Your task to perform on an android device: change the upload size in google photos Image 0: 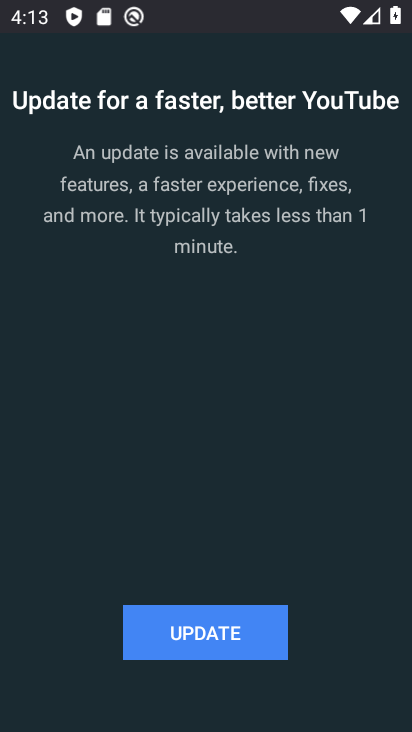
Step 0: press back button
Your task to perform on an android device: change the upload size in google photos Image 1: 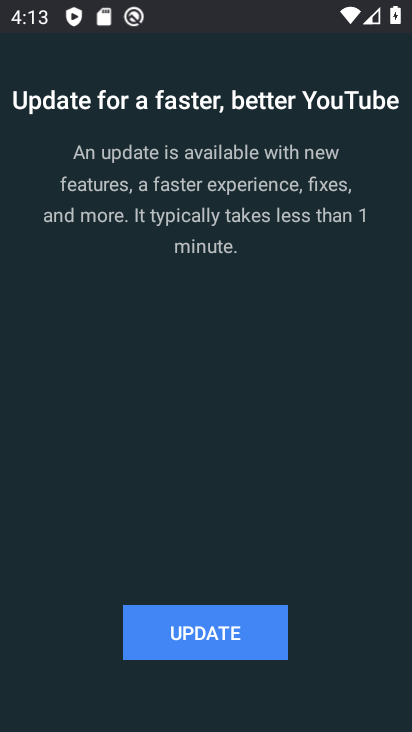
Step 1: press back button
Your task to perform on an android device: change the upload size in google photos Image 2: 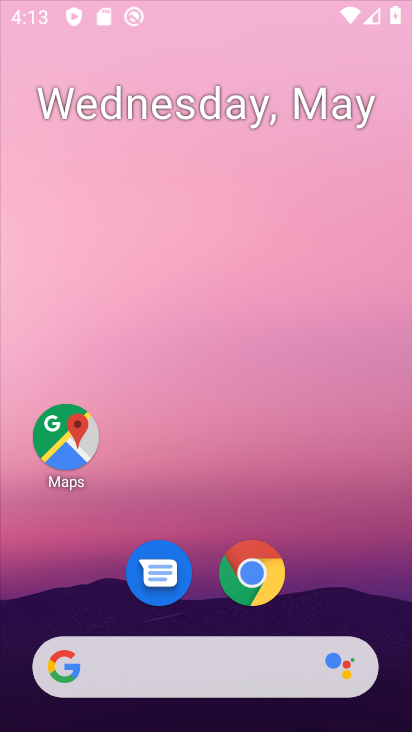
Step 2: press back button
Your task to perform on an android device: change the upload size in google photos Image 3: 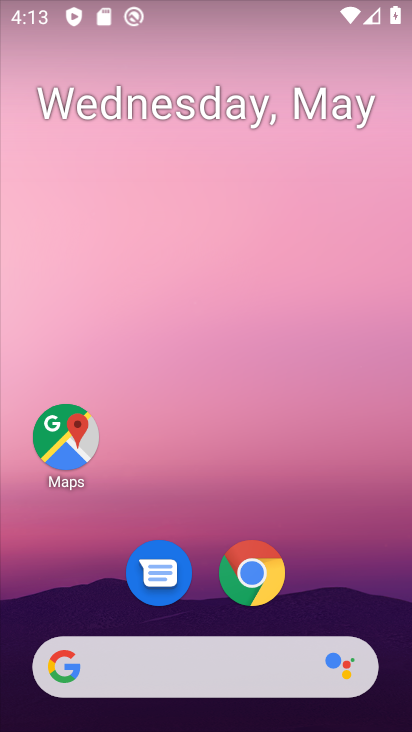
Step 3: drag from (232, 708) to (147, 180)
Your task to perform on an android device: change the upload size in google photos Image 4: 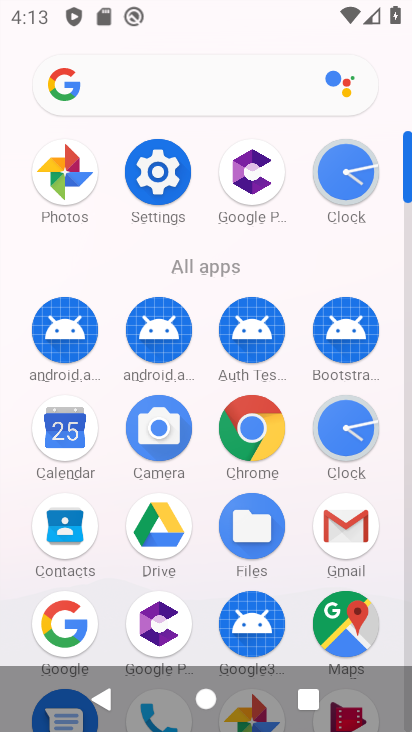
Step 4: drag from (294, 425) to (294, 175)
Your task to perform on an android device: change the upload size in google photos Image 5: 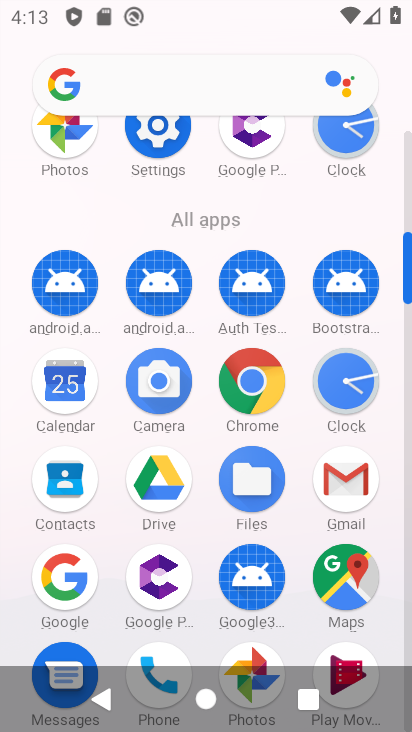
Step 5: drag from (330, 477) to (296, 138)
Your task to perform on an android device: change the upload size in google photos Image 6: 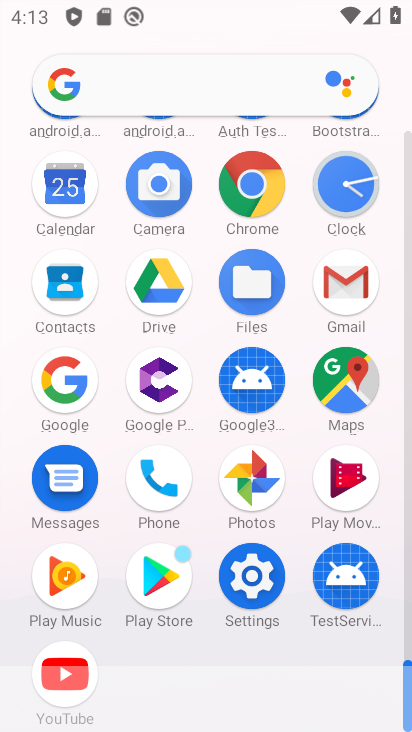
Step 6: click (244, 485)
Your task to perform on an android device: change the upload size in google photos Image 7: 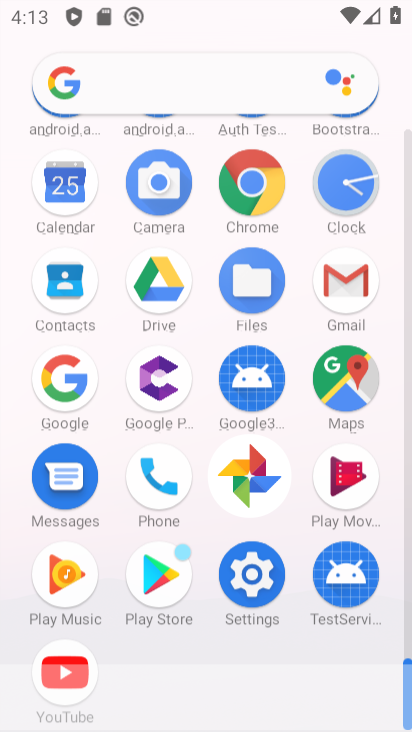
Step 7: click (245, 483)
Your task to perform on an android device: change the upload size in google photos Image 8: 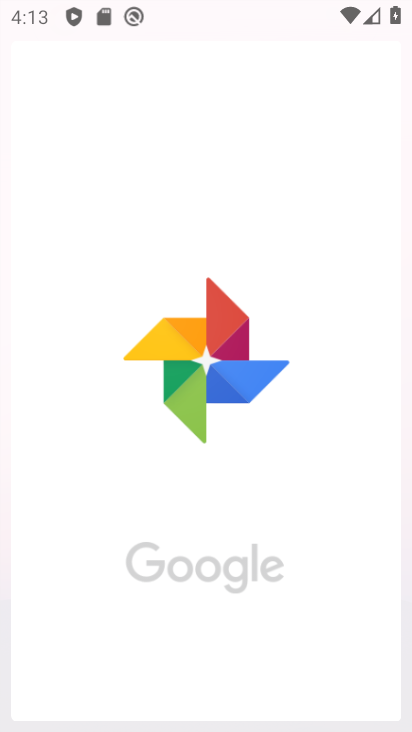
Step 8: click (246, 483)
Your task to perform on an android device: change the upload size in google photos Image 9: 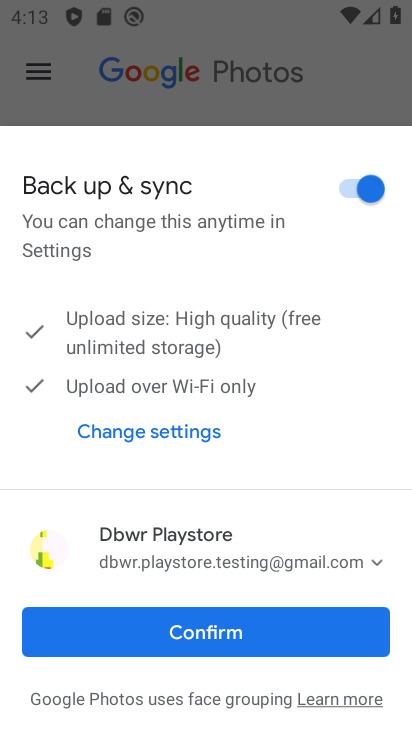
Step 9: click (217, 628)
Your task to perform on an android device: change the upload size in google photos Image 10: 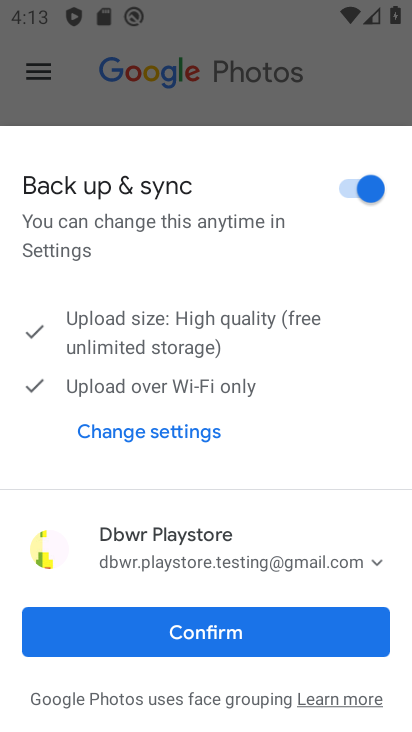
Step 10: click (217, 628)
Your task to perform on an android device: change the upload size in google photos Image 11: 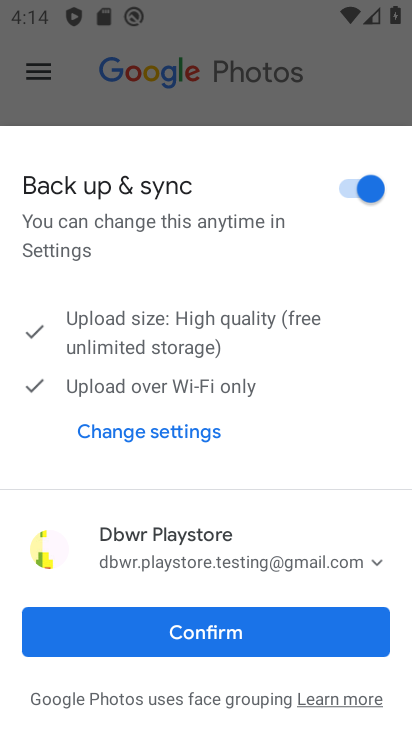
Step 11: click (217, 628)
Your task to perform on an android device: change the upload size in google photos Image 12: 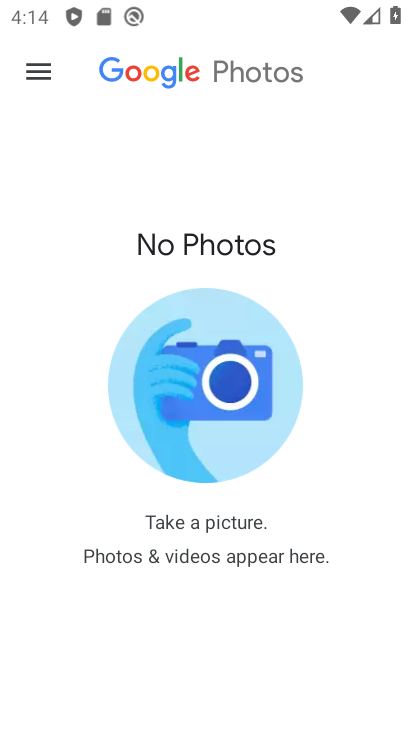
Step 12: click (218, 627)
Your task to perform on an android device: change the upload size in google photos Image 13: 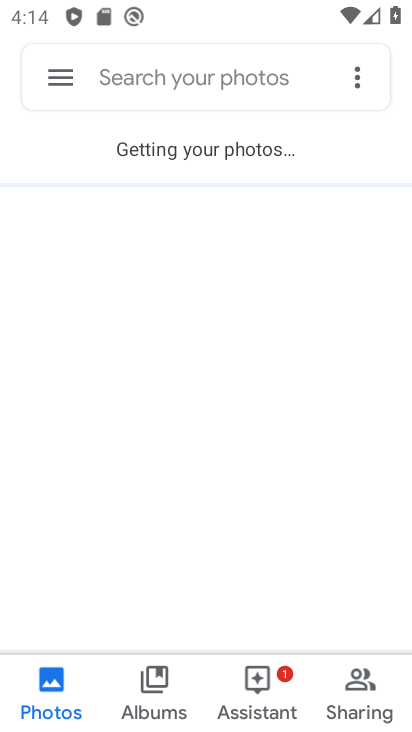
Step 13: press back button
Your task to perform on an android device: change the upload size in google photos Image 14: 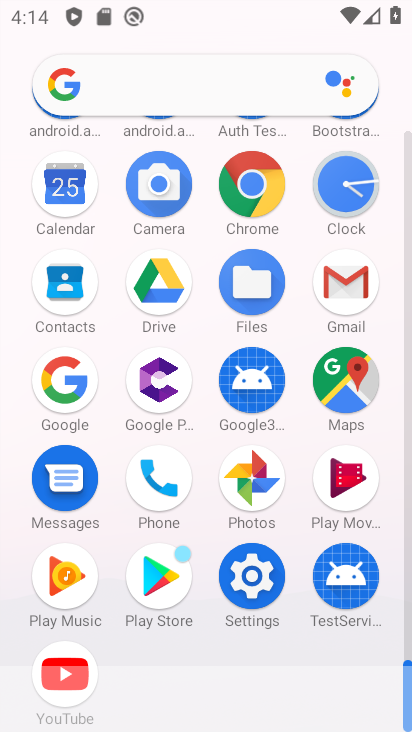
Step 14: click (253, 478)
Your task to perform on an android device: change the upload size in google photos Image 15: 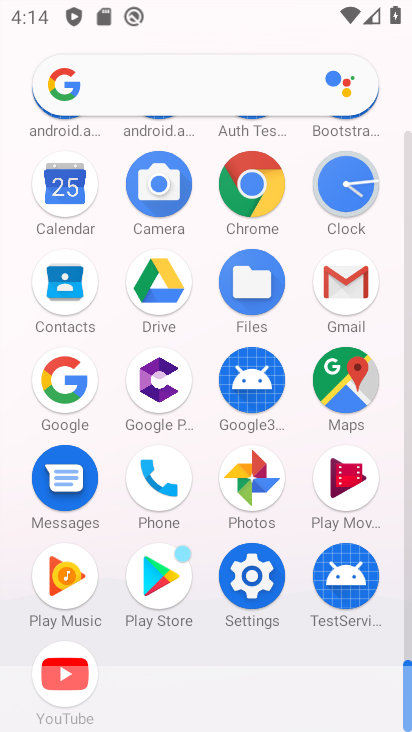
Step 15: click (253, 478)
Your task to perform on an android device: change the upload size in google photos Image 16: 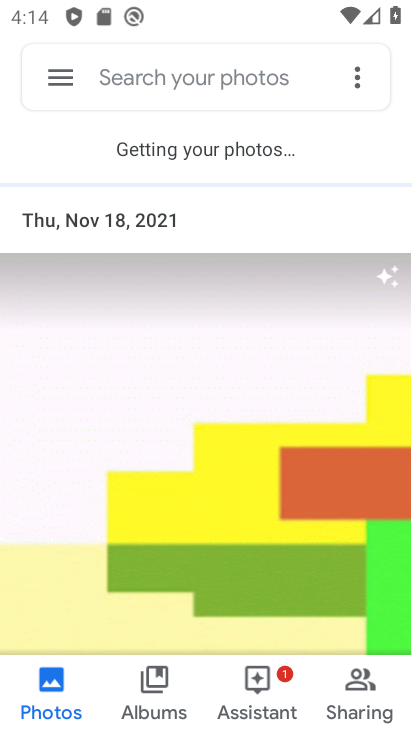
Step 16: click (46, 75)
Your task to perform on an android device: change the upload size in google photos Image 17: 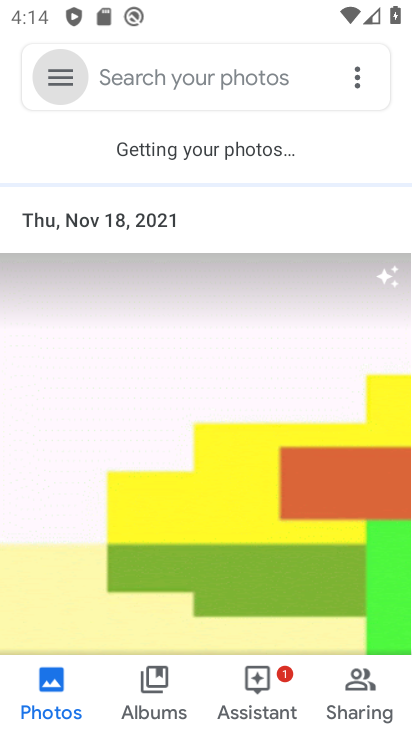
Step 17: click (46, 75)
Your task to perform on an android device: change the upload size in google photos Image 18: 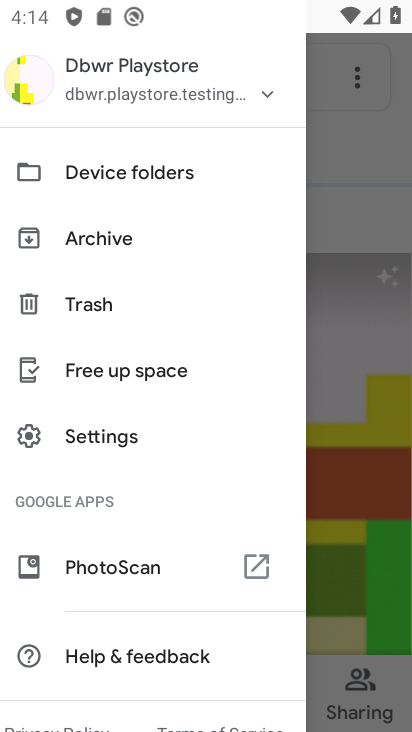
Step 18: drag from (50, 79) to (111, 435)
Your task to perform on an android device: change the upload size in google photos Image 19: 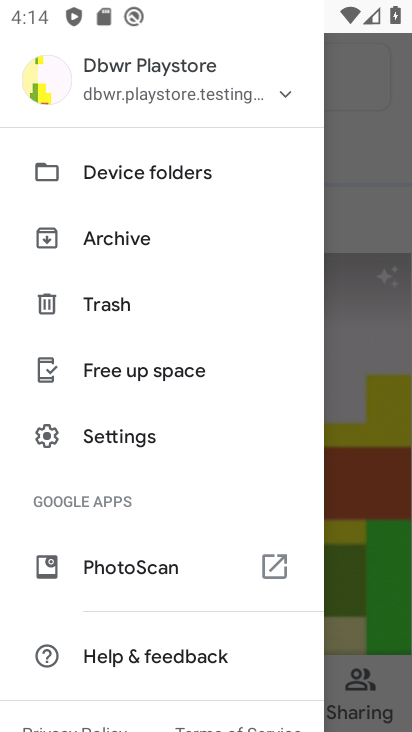
Step 19: click (108, 434)
Your task to perform on an android device: change the upload size in google photos Image 20: 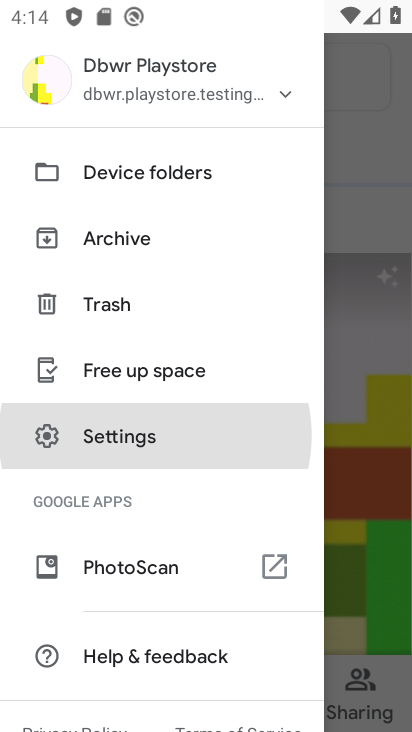
Step 20: click (108, 434)
Your task to perform on an android device: change the upload size in google photos Image 21: 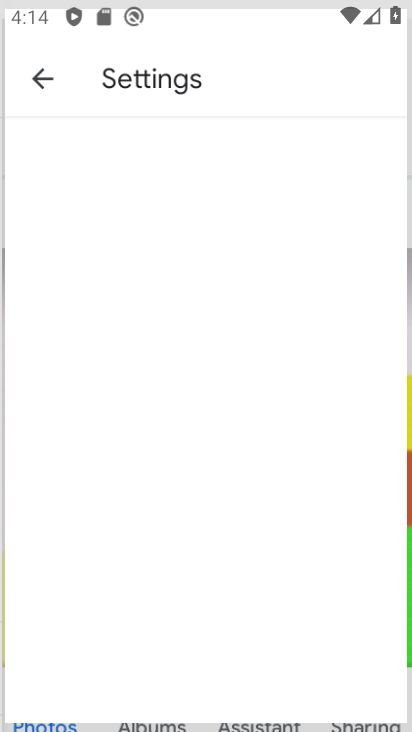
Step 21: click (108, 434)
Your task to perform on an android device: change the upload size in google photos Image 22: 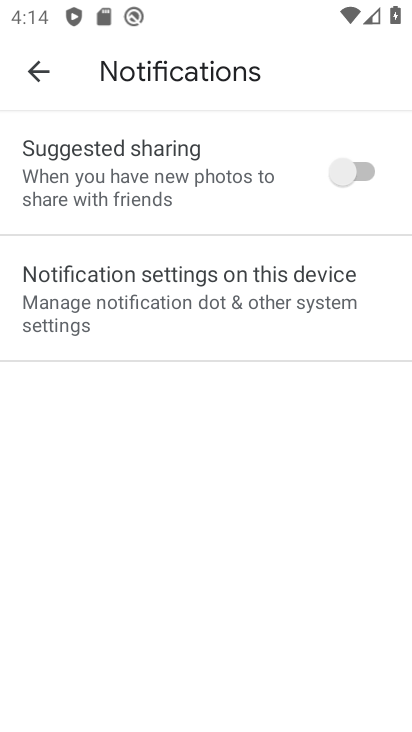
Step 22: click (36, 60)
Your task to perform on an android device: change the upload size in google photos Image 23: 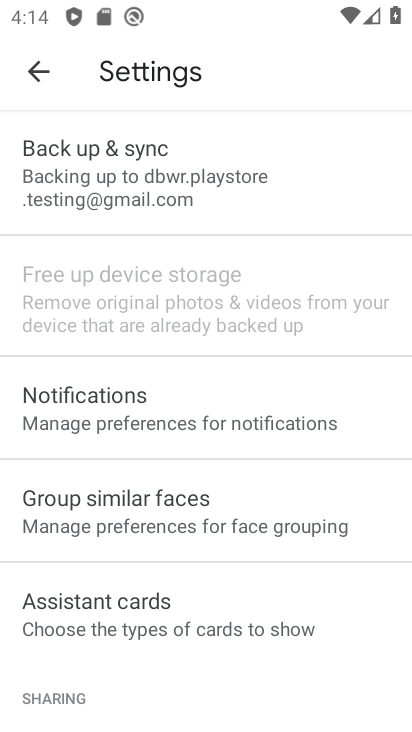
Step 23: click (91, 178)
Your task to perform on an android device: change the upload size in google photos Image 24: 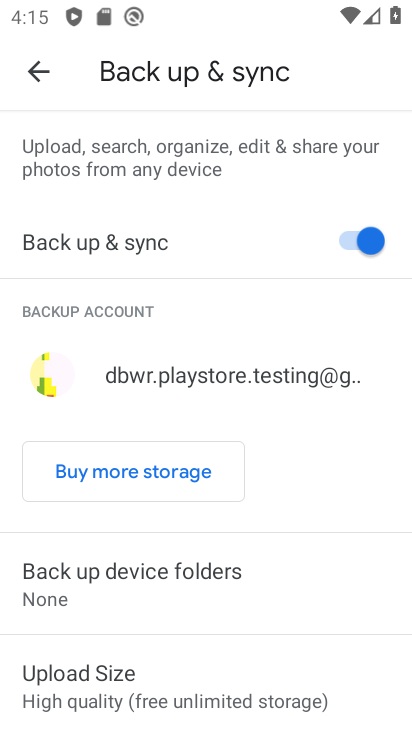
Step 24: click (79, 153)
Your task to perform on an android device: change the upload size in google photos Image 25: 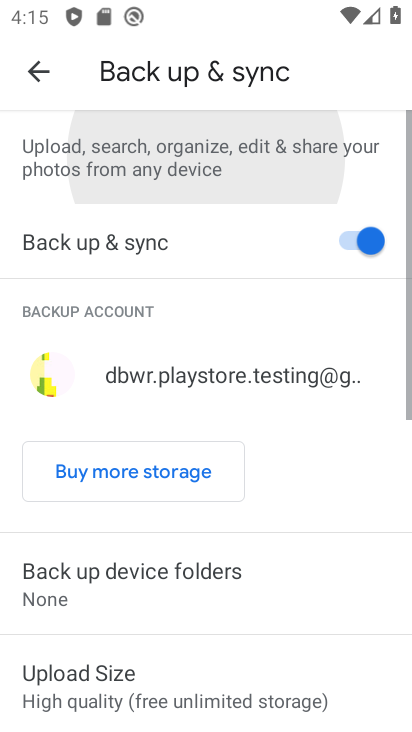
Step 25: click (83, 153)
Your task to perform on an android device: change the upload size in google photos Image 26: 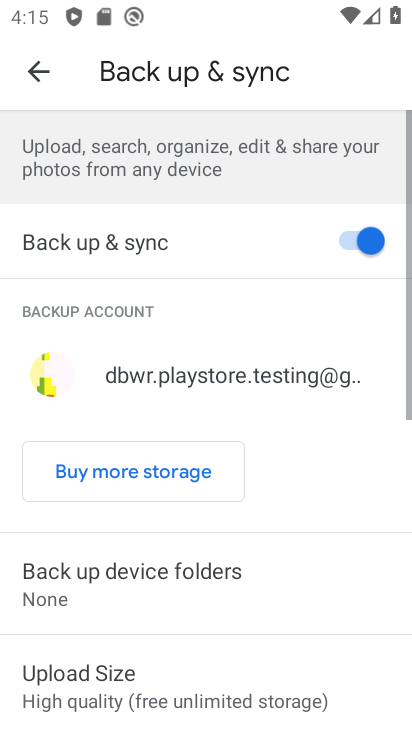
Step 26: click (83, 153)
Your task to perform on an android device: change the upload size in google photos Image 27: 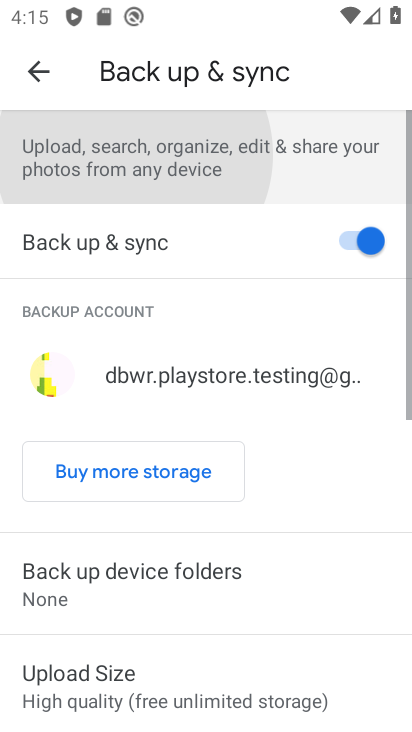
Step 27: click (84, 152)
Your task to perform on an android device: change the upload size in google photos Image 28: 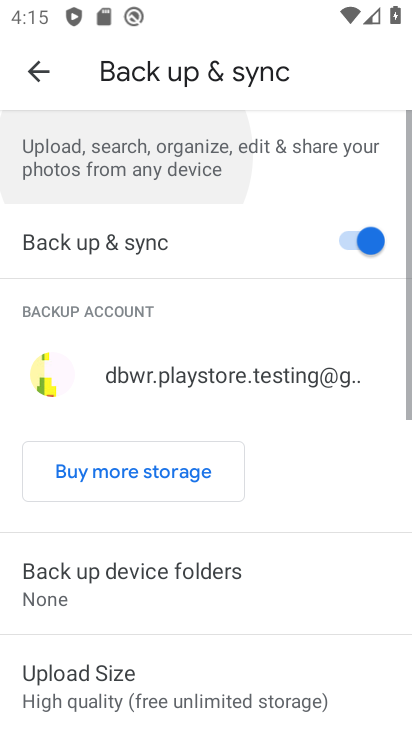
Step 28: click (85, 151)
Your task to perform on an android device: change the upload size in google photos Image 29: 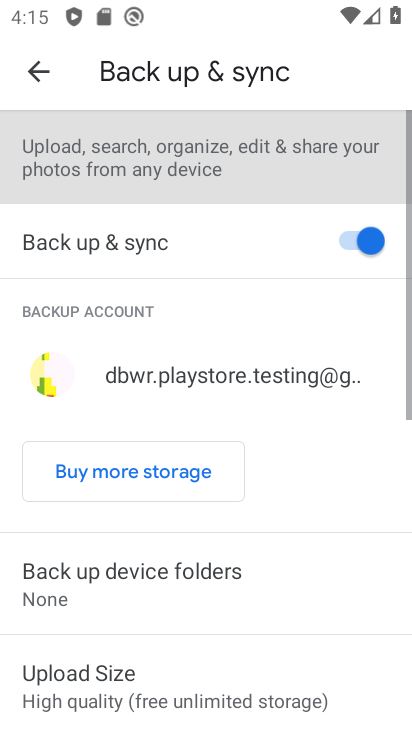
Step 29: click (85, 151)
Your task to perform on an android device: change the upload size in google photos Image 30: 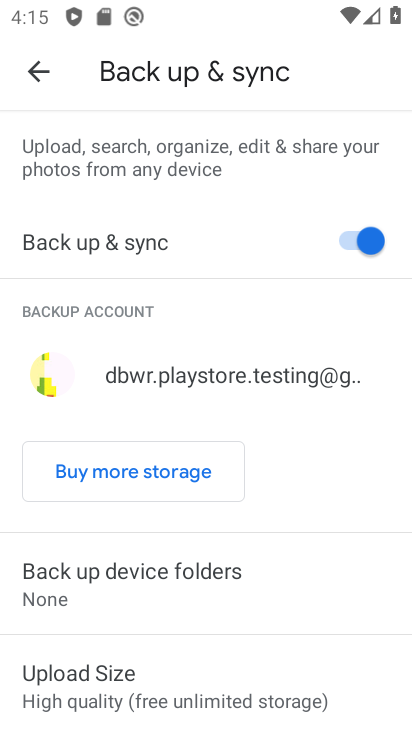
Step 30: click (83, 189)
Your task to perform on an android device: change the upload size in google photos Image 31: 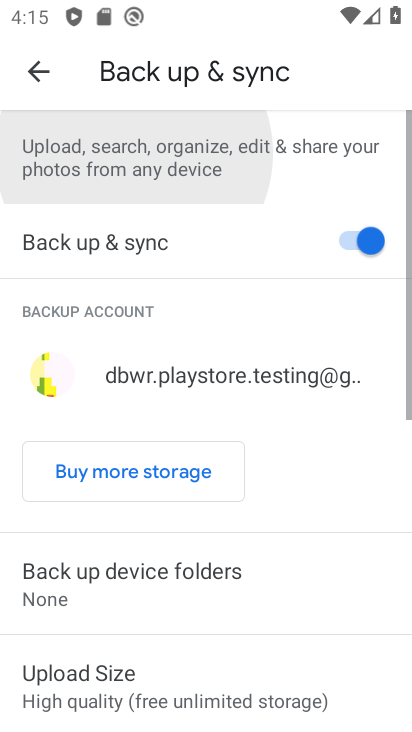
Step 31: click (83, 157)
Your task to perform on an android device: change the upload size in google photos Image 32: 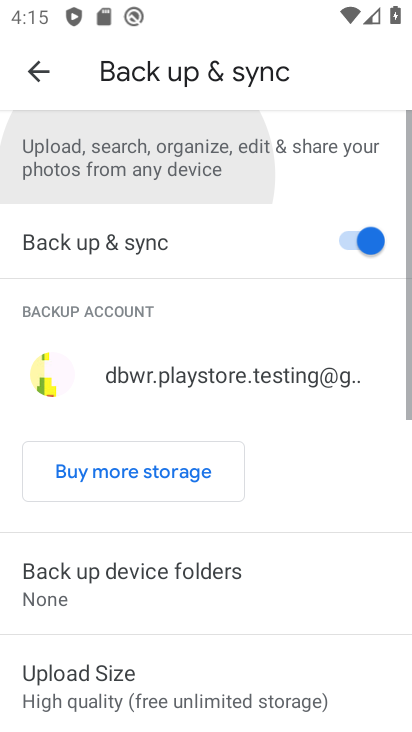
Step 32: click (83, 156)
Your task to perform on an android device: change the upload size in google photos Image 33: 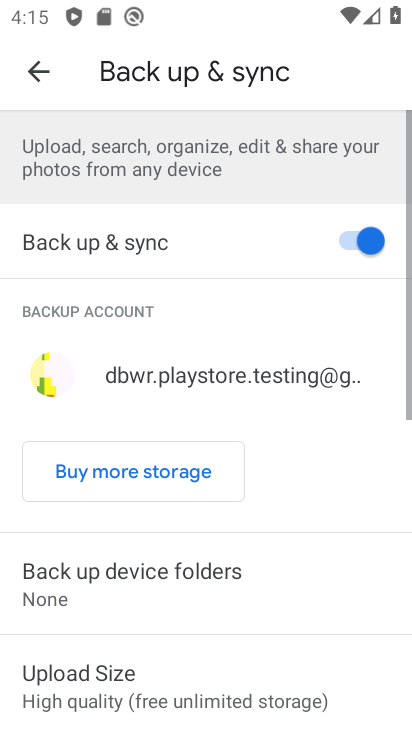
Step 33: click (89, 155)
Your task to perform on an android device: change the upload size in google photos Image 34: 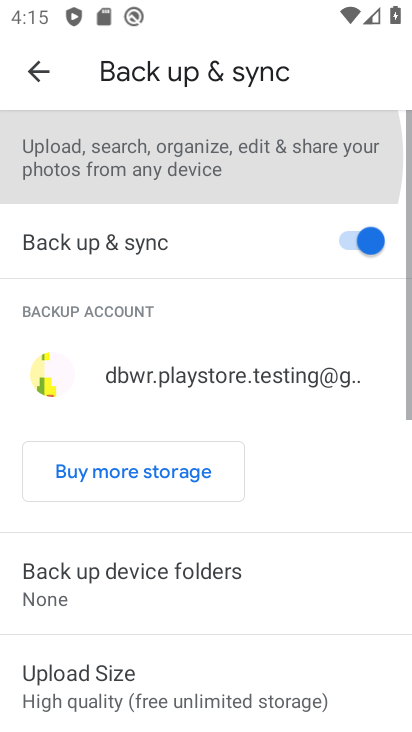
Step 34: click (89, 155)
Your task to perform on an android device: change the upload size in google photos Image 35: 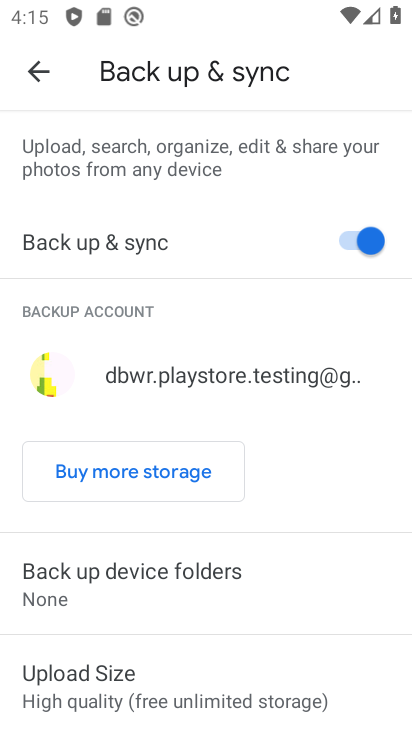
Step 35: click (87, 160)
Your task to perform on an android device: change the upload size in google photos Image 36: 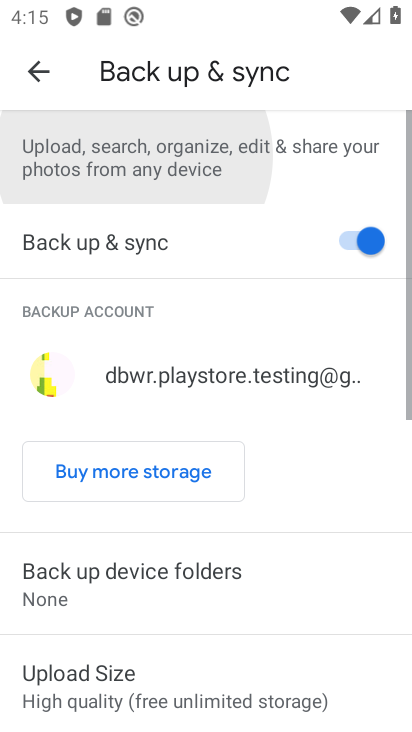
Step 36: click (87, 160)
Your task to perform on an android device: change the upload size in google photos Image 37: 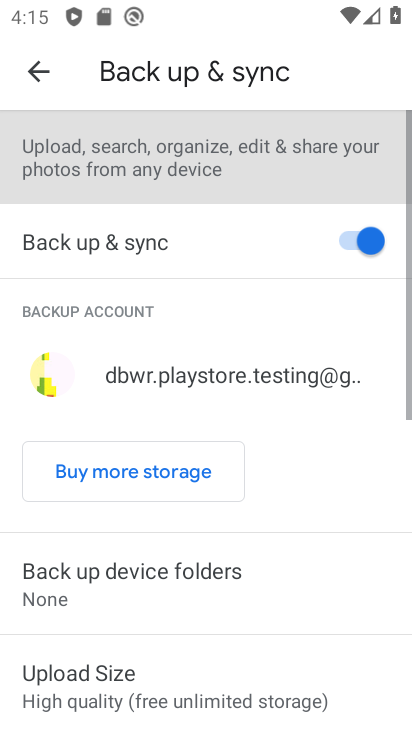
Step 37: click (87, 161)
Your task to perform on an android device: change the upload size in google photos Image 38: 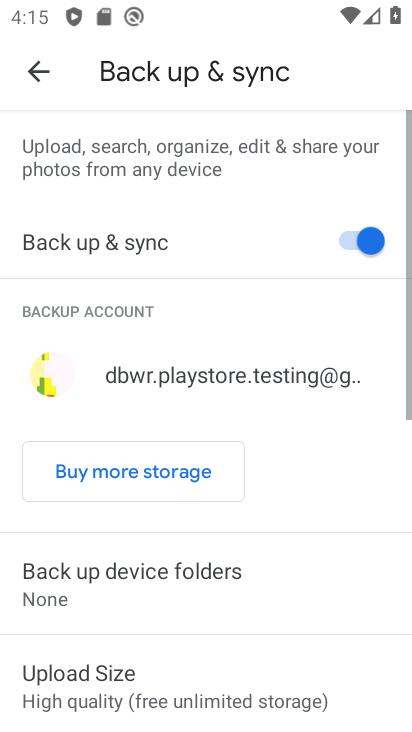
Step 38: click (87, 161)
Your task to perform on an android device: change the upload size in google photos Image 39: 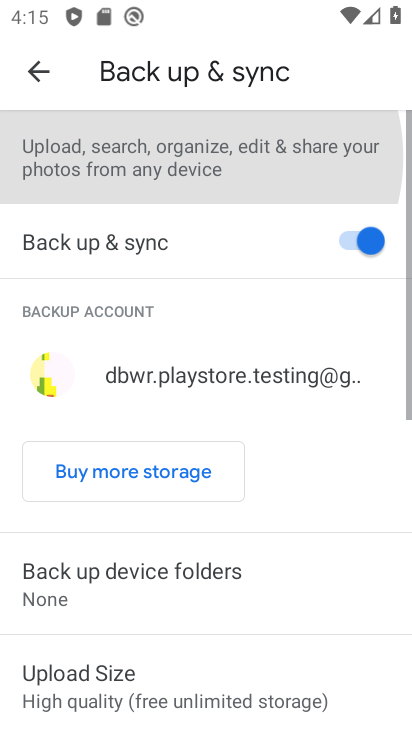
Step 39: click (87, 163)
Your task to perform on an android device: change the upload size in google photos Image 40: 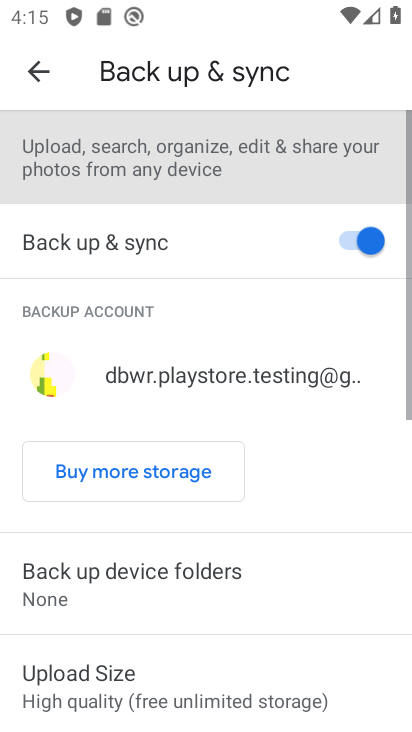
Step 40: click (89, 165)
Your task to perform on an android device: change the upload size in google photos Image 41: 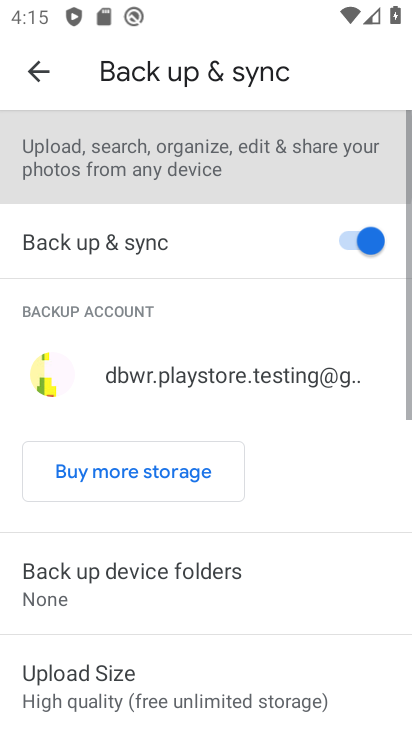
Step 41: click (89, 165)
Your task to perform on an android device: change the upload size in google photos Image 42: 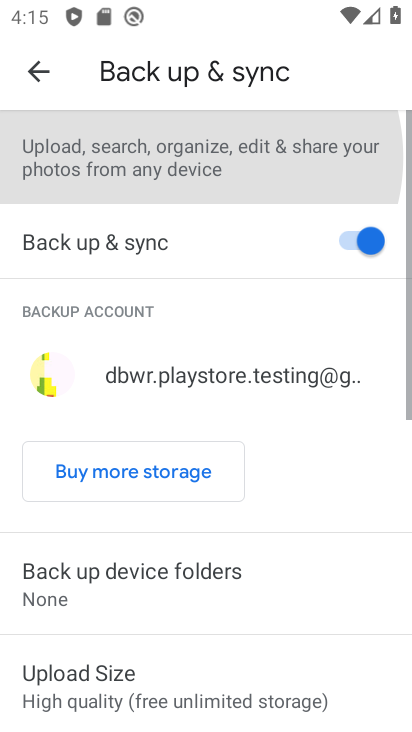
Step 42: click (89, 165)
Your task to perform on an android device: change the upload size in google photos Image 43: 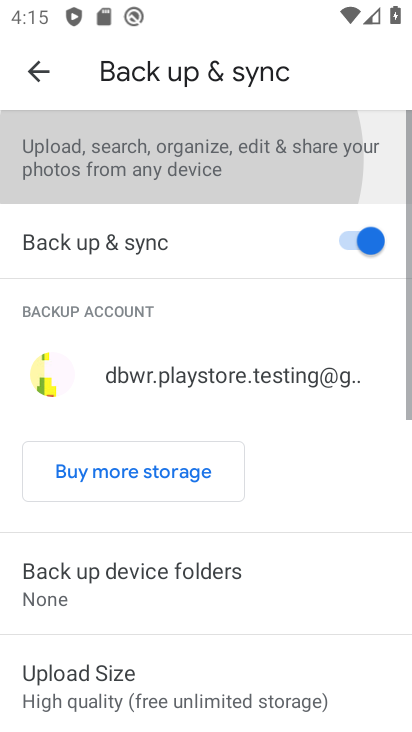
Step 43: click (89, 165)
Your task to perform on an android device: change the upload size in google photos Image 44: 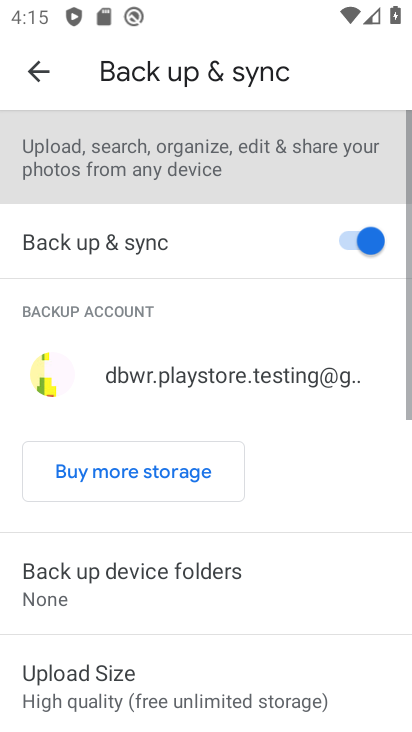
Step 44: click (89, 165)
Your task to perform on an android device: change the upload size in google photos Image 45: 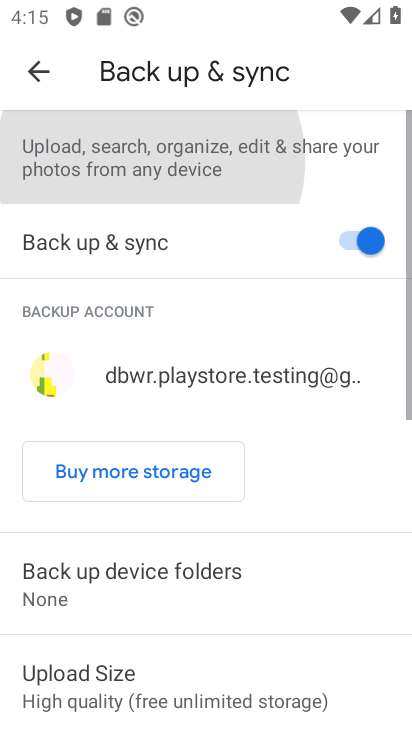
Step 45: click (90, 165)
Your task to perform on an android device: change the upload size in google photos Image 46: 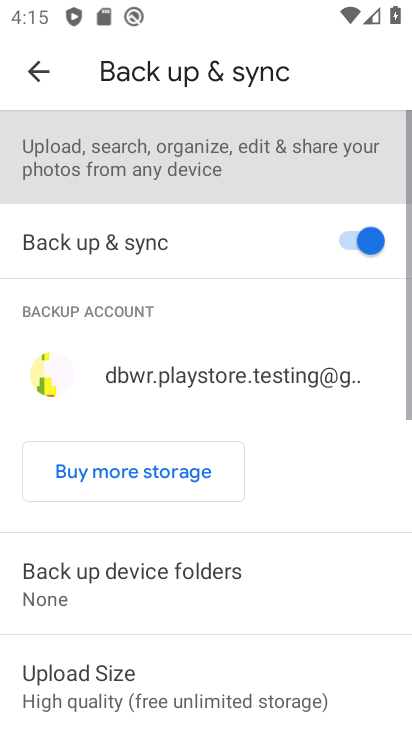
Step 46: click (90, 165)
Your task to perform on an android device: change the upload size in google photos Image 47: 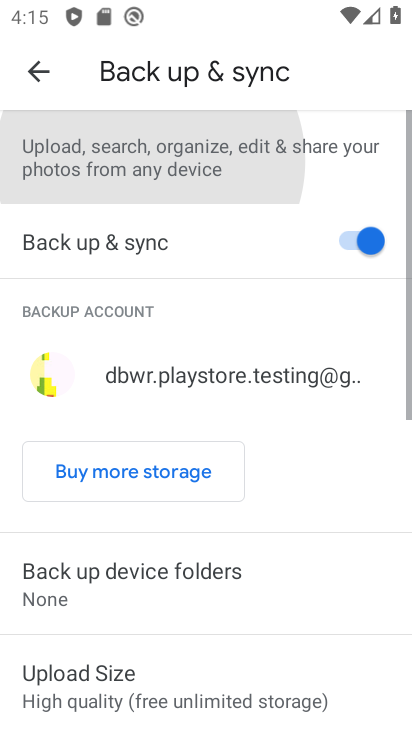
Step 47: click (91, 166)
Your task to perform on an android device: change the upload size in google photos Image 48: 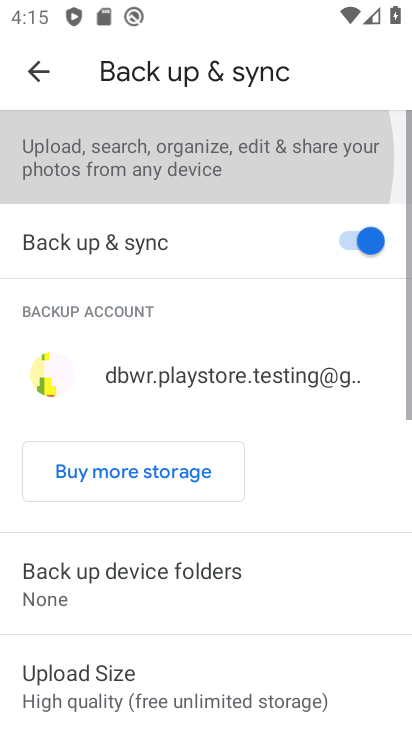
Step 48: click (91, 166)
Your task to perform on an android device: change the upload size in google photos Image 49: 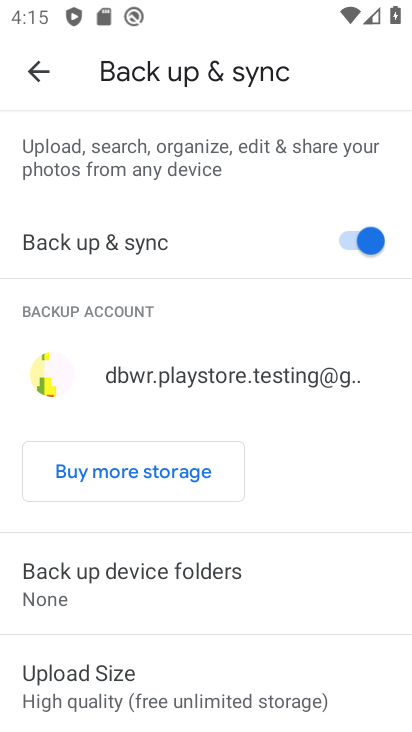
Step 49: click (148, 149)
Your task to perform on an android device: change the upload size in google photos Image 50: 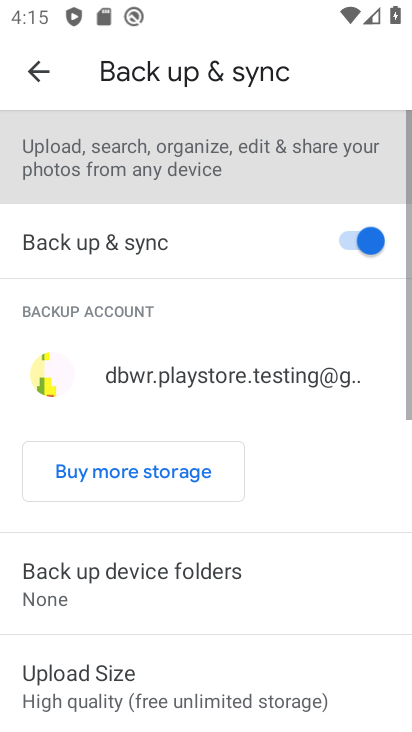
Step 50: click (155, 162)
Your task to perform on an android device: change the upload size in google photos Image 51: 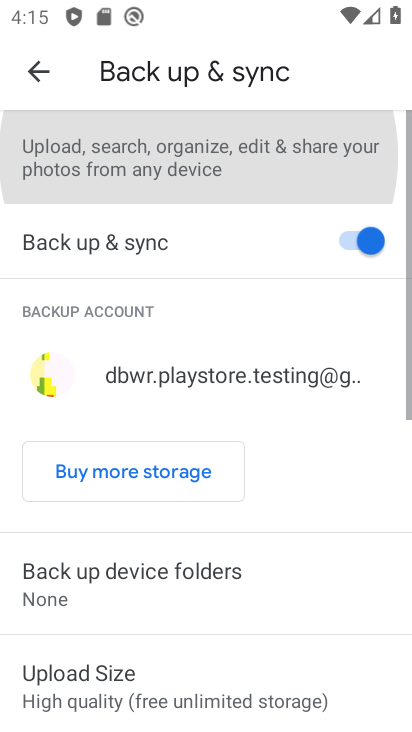
Step 51: click (152, 162)
Your task to perform on an android device: change the upload size in google photos Image 52: 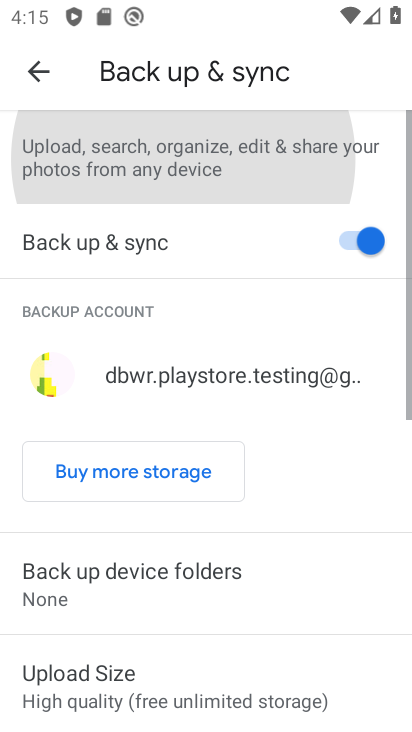
Step 52: click (150, 162)
Your task to perform on an android device: change the upload size in google photos Image 53: 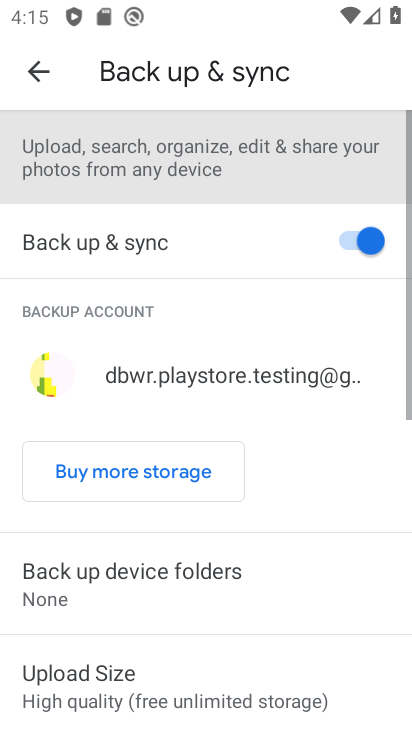
Step 53: click (150, 162)
Your task to perform on an android device: change the upload size in google photos Image 54: 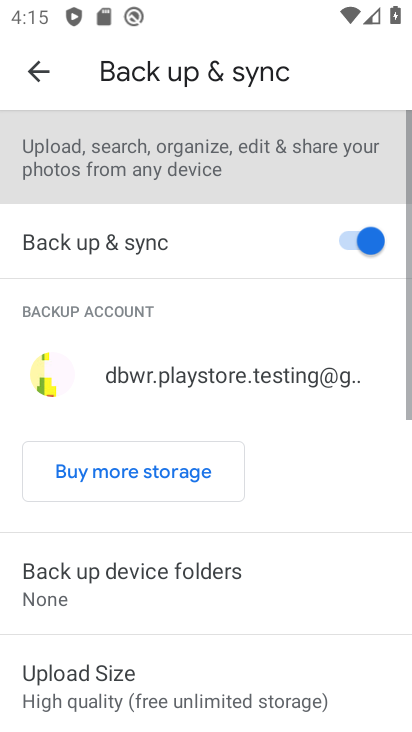
Step 54: click (143, 166)
Your task to perform on an android device: change the upload size in google photos Image 55: 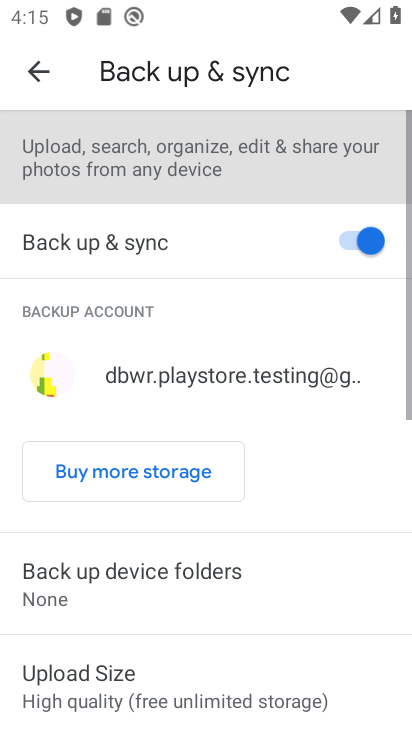
Step 55: click (140, 168)
Your task to perform on an android device: change the upload size in google photos Image 56: 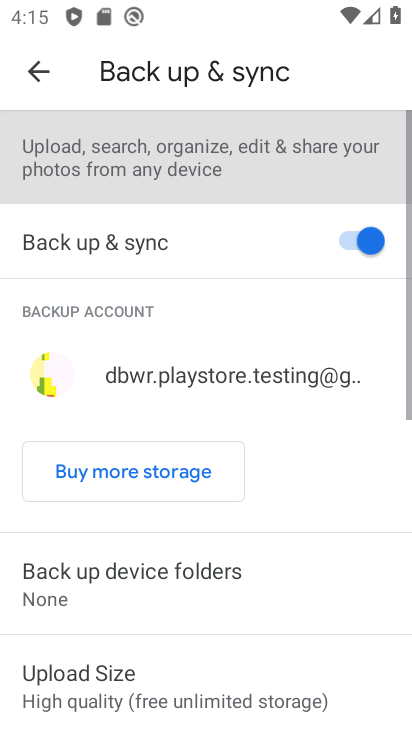
Step 56: click (137, 172)
Your task to perform on an android device: change the upload size in google photos Image 57: 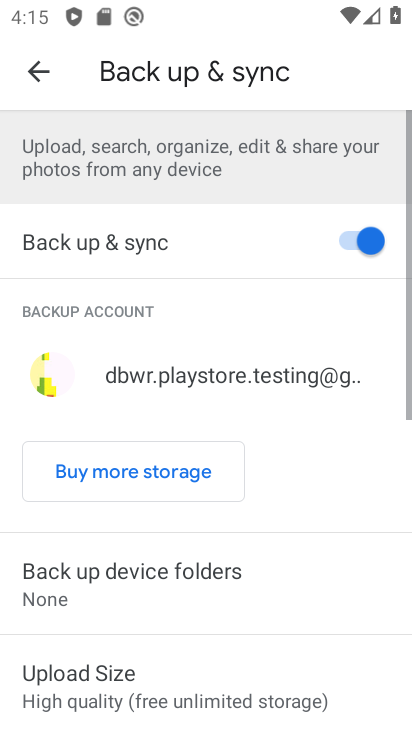
Step 57: click (138, 173)
Your task to perform on an android device: change the upload size in google photos Image 58: 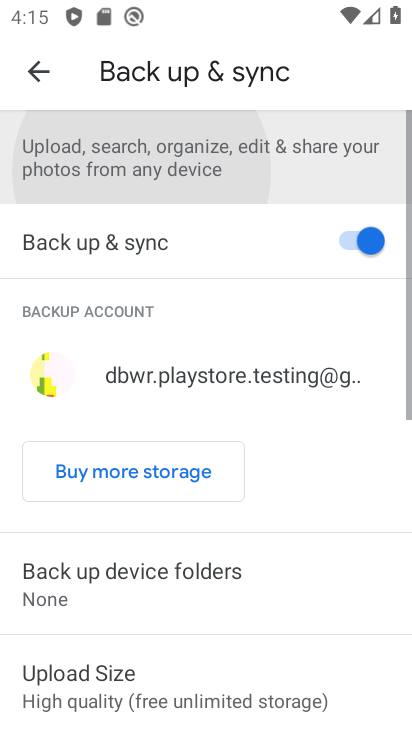
Step 58: click (131, 191)
Your task to perform on an android device: change the upload size in google photos Image 59: 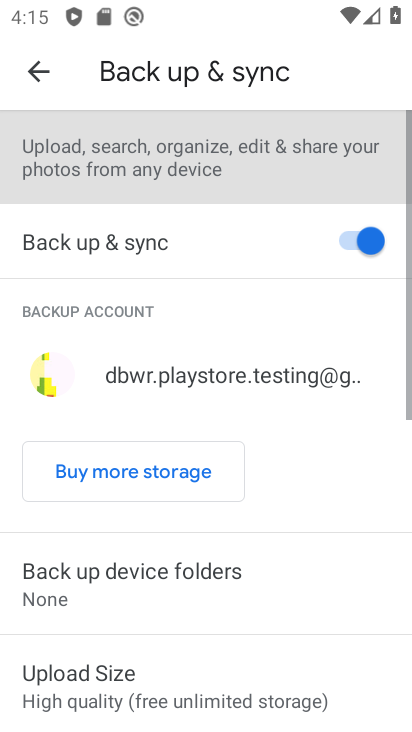
Step 59: click (129, 192)
Your task to perform on an android device: change the upload size in google photos Image 60: 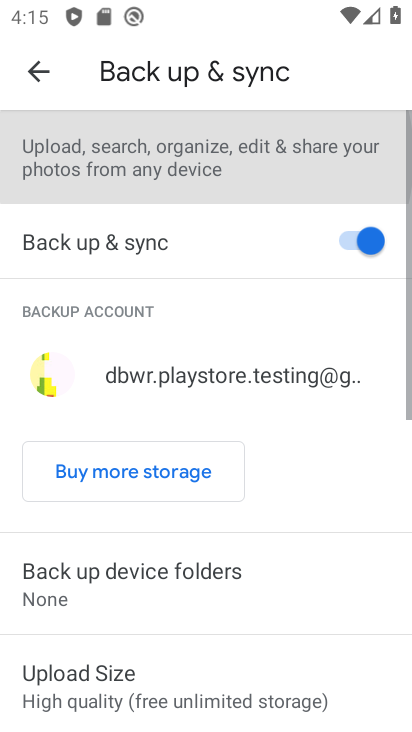
Step 60: click (129, 192)
Your task to perform on an android device: change the upload size in google photos Image 61: 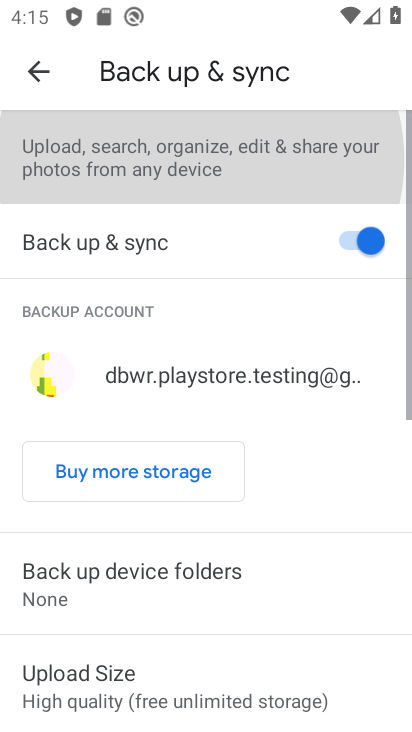
Step 61: click (129, 192)
Your task to perform on an android device: change the upload size in google photos Image 62: 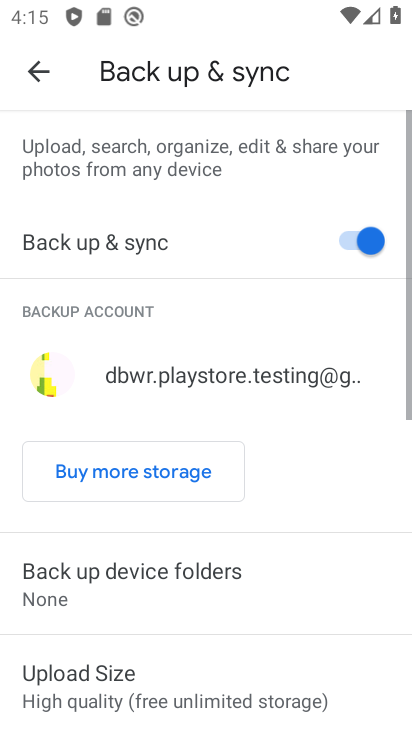
Step 62: click (158, 163)
Your task to perform on an android device: change the upload size in google photos Image 63: 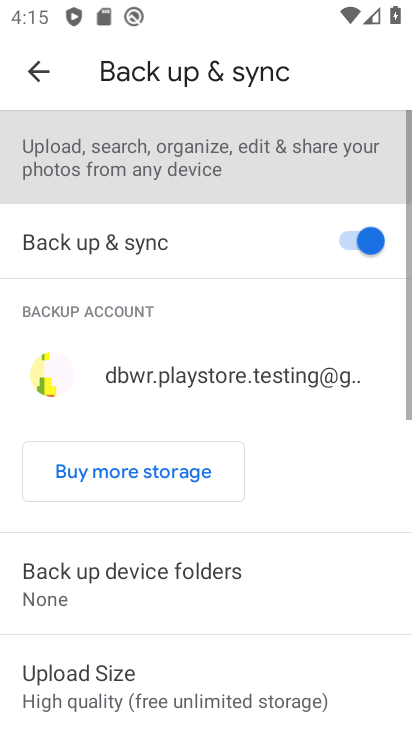
Step 63: click (158, 163)
Your task to perform on an android device: change the upload size in google photos Image 64: 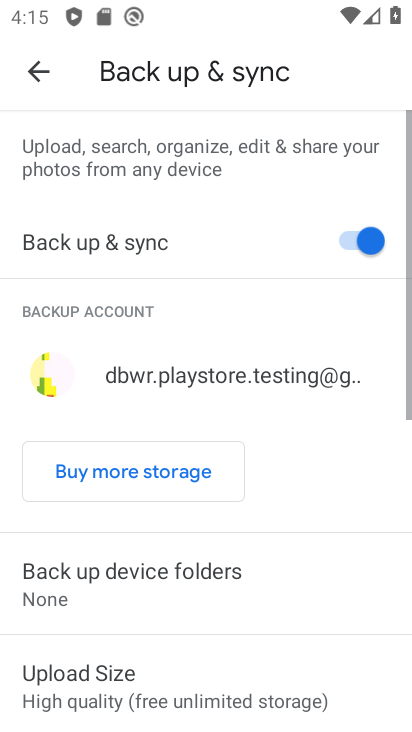
Step 64: click (158, 163)
Your task to perform on an android device: change the upload size in google photos Image 65: 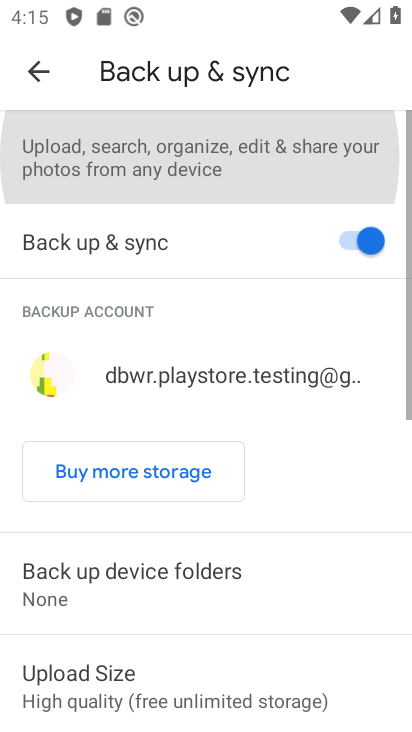
Step 65: click (156, 164)
Your task to perform on an android device: change the upload size in google photos Image 66: 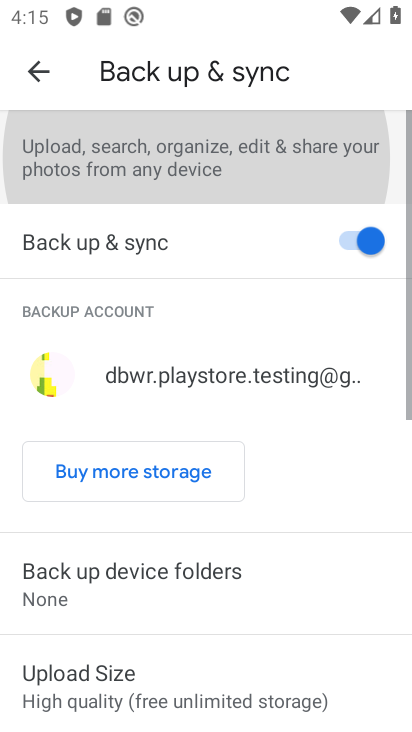
Step 66: click (155, 164)
Your task to perform on an android device: change the upload size in google photos Image 67: 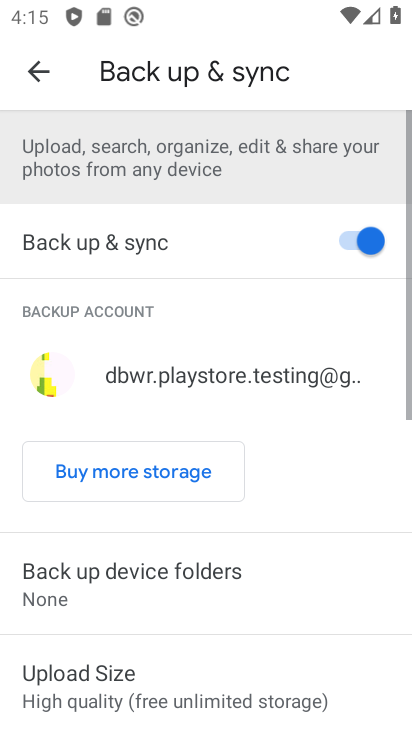
Step 67: click (153, 166)
Your task to perform on an android device: change the upload size in google photos Image 68: 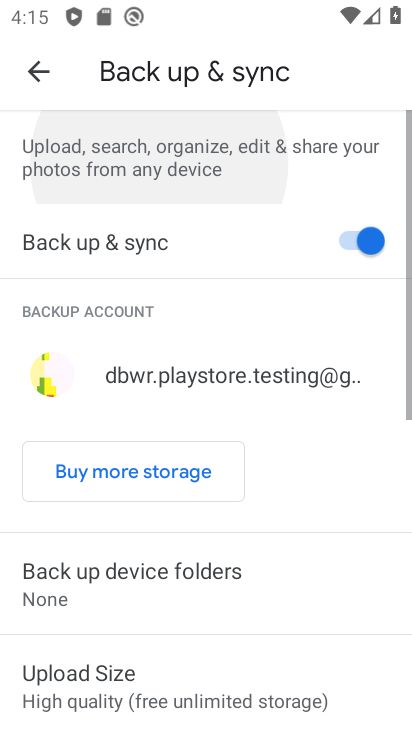
Step 68: click (152, 166)
Your task to perform on an android device: change the upload size in google photos Image 69: 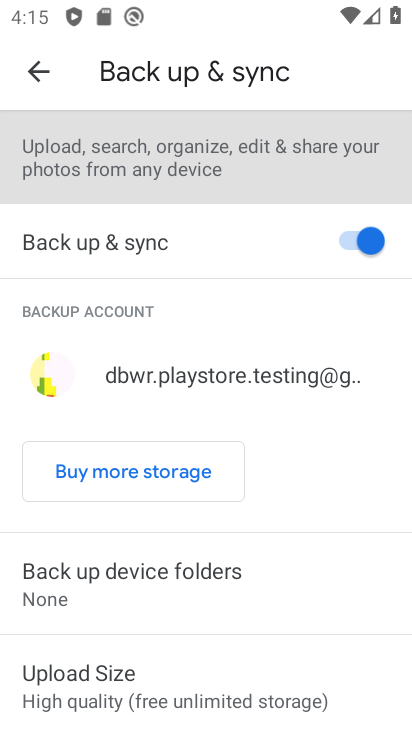
Step 69: click (153, 168)
Your task to perform on an android device: change the upload size in google photos Image 70: 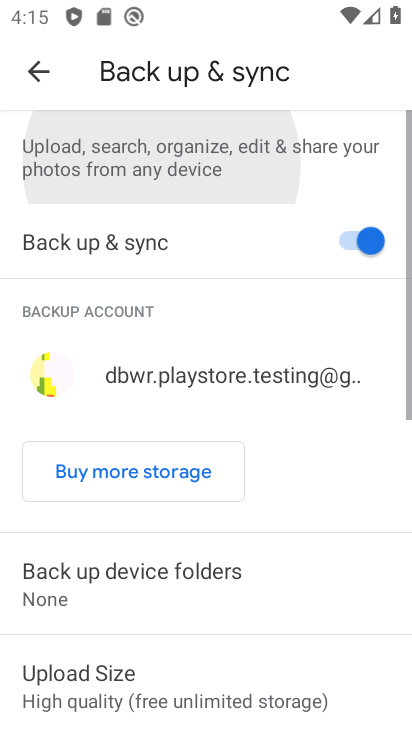
Step 70: click (153, 168)
Your task to perform on an android device: change the upload size in google photos Image 71: 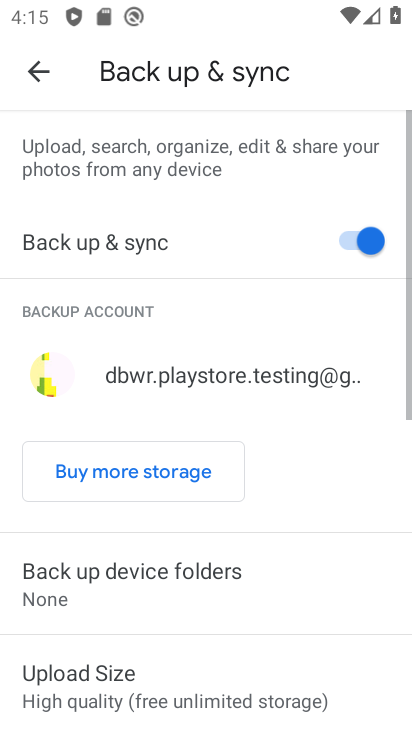
Step 71: task complete